Your task to perform on an android device: Open Google Chrome and click the shortcut for Amazon.com Image 0: 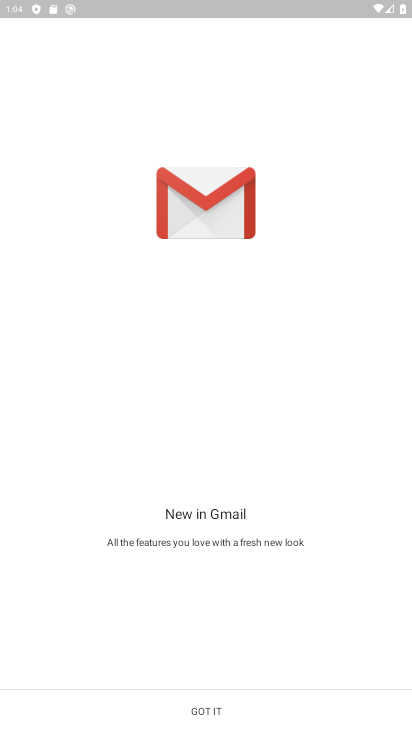
Step 0: press home button
Your task to perform on an android device: Open Google Chrome and click the shortcut for Amazon.com Image 1: 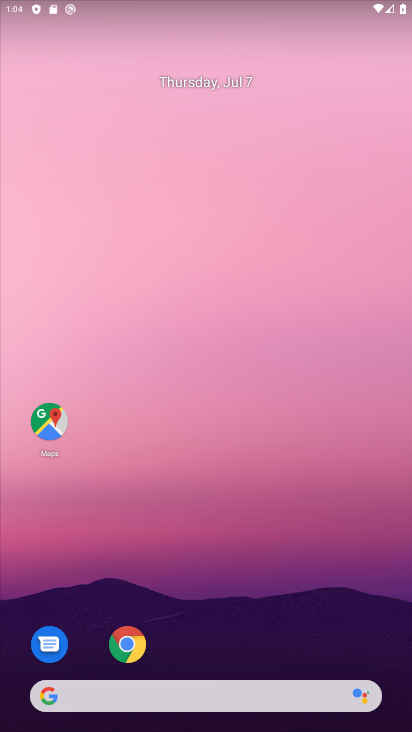
Step 1: click (132, 653)
Your task to perform on an android device: Open Google Chrome and click the shortcut for Amazon.com Image 2: 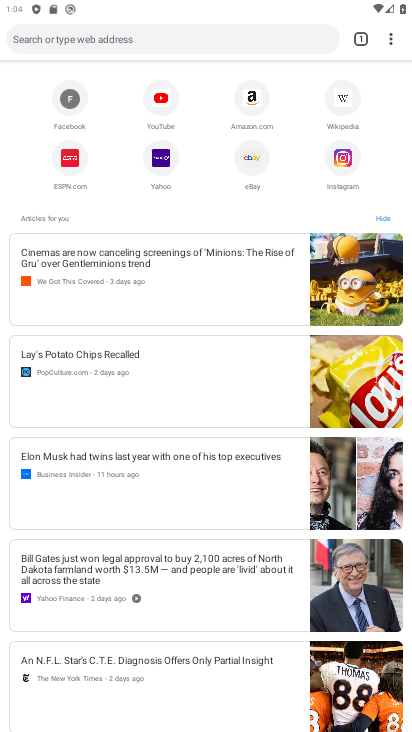
Step 2: click (252, 101)
Your task to perform on an android device: Open Google Chrome and click the shortcut for Amazon.com Image 3: 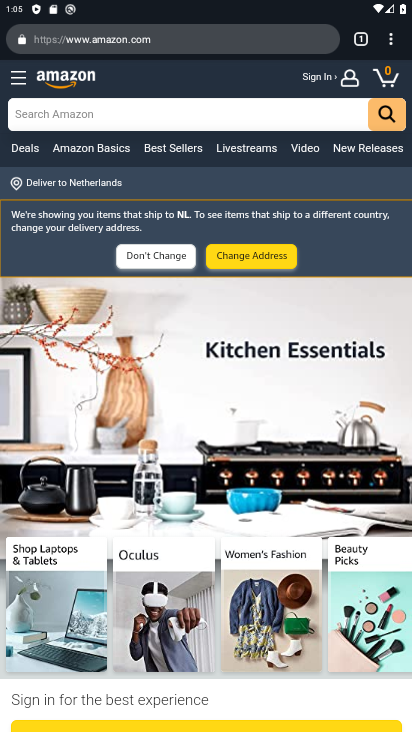
Step 3: task complete